Your task to perform on an android device: Turn off the flashlight Image 0: 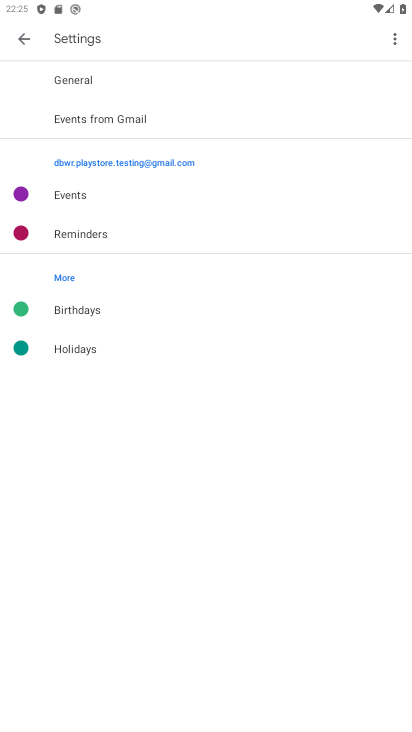
Step 0: press home button
Your task to perform on an android device: Turn off the flashlight Image 1: 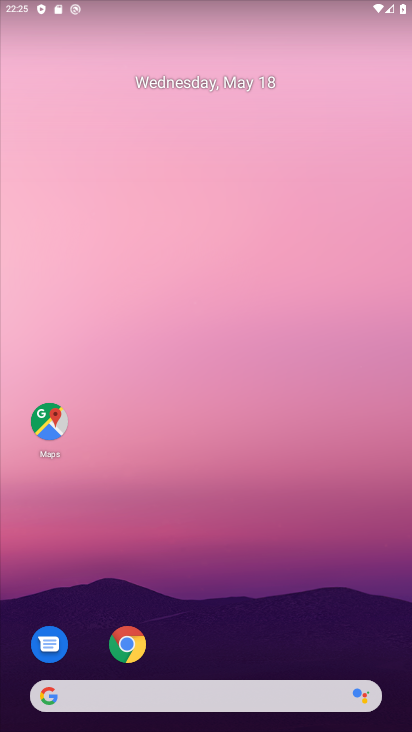
Step 1: drag from (254, 610) to (267, 97)
Your task to perform on an android device: Turn off the flashlight Image 2: 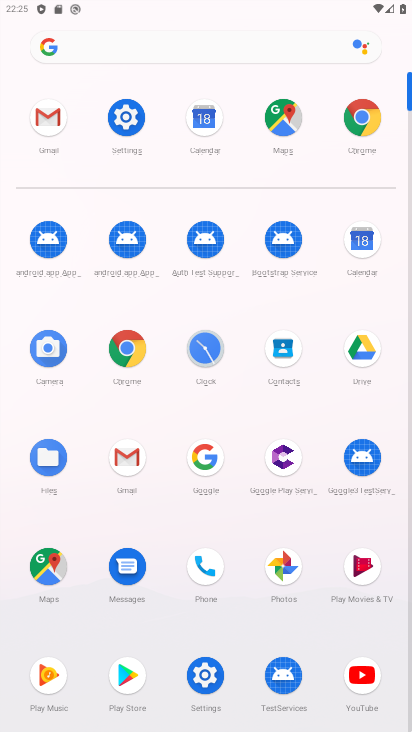
Step 2: click (132, 122)
Your task to perform on an android device: Turn off the flashlight Image 3: 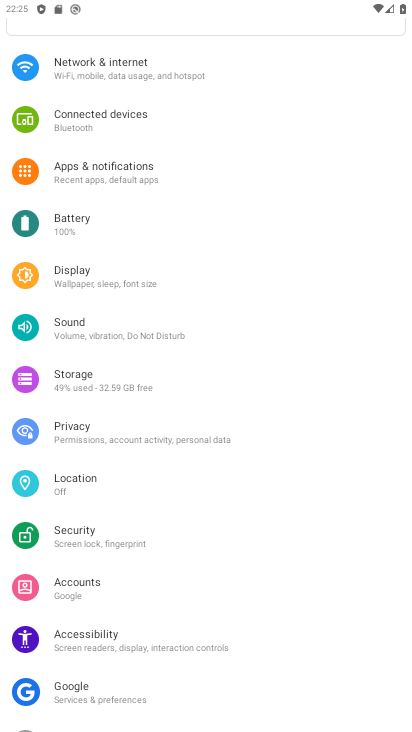
Step 3: drag from (148, 102) to (160, 506)
Your task to perform on an android device: Turn off the flashlight Image 4: 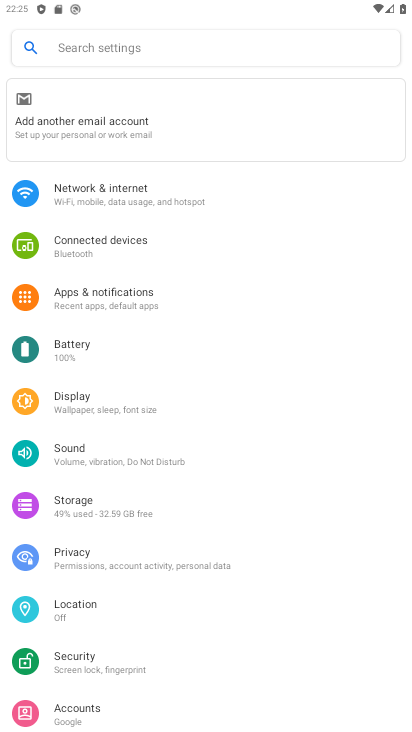
Step 4: click (110, 406)
Your task to perform on an android device: Turn off the flashlight Image 5: 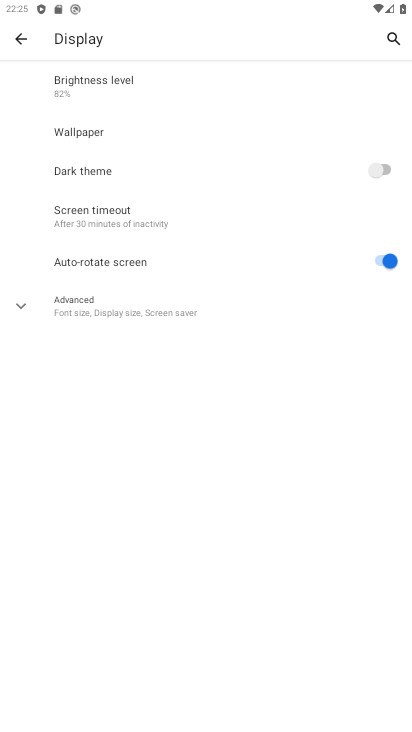
Step 5: task complete